Your task to perform on an android device: What's the weather today? Image 0: 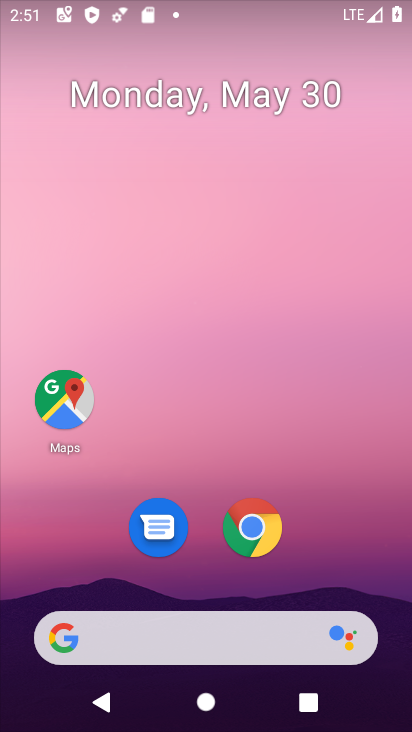
Step 0: drag from (318, 556) to (328, 62)
Your task to perform on an android device: What's the weather today? Image 1: 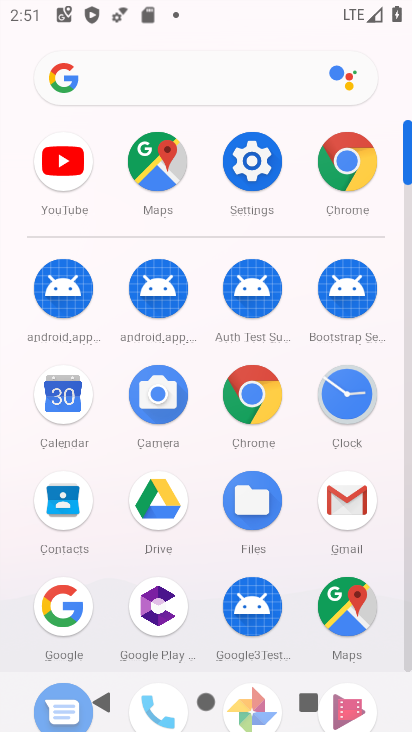
Step 1: click (244, 405)
Your task to perform on an android device: What's the weather today? Image 2: 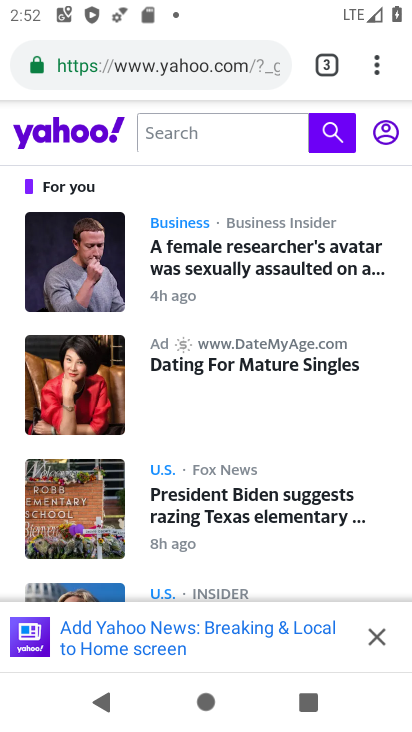
Step 2: drag from (282, 544) to (294, 220)
Your task to perform on an android device: What's the weather today? Image 3: 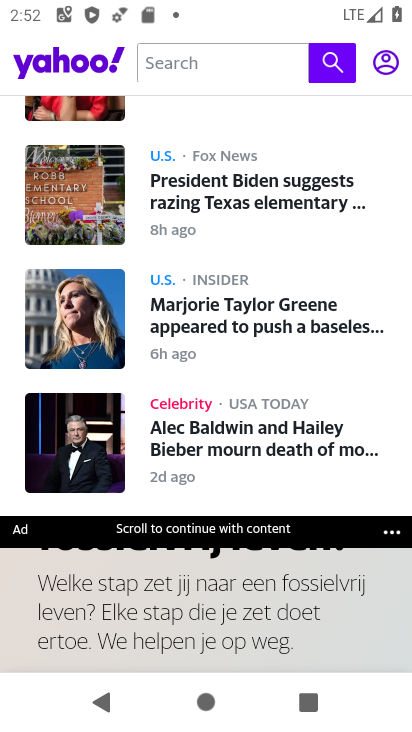
Step 3: drag from (245, 319) to (241, 504)
Your task to perform on an android device: What's the weather today? Image 4: 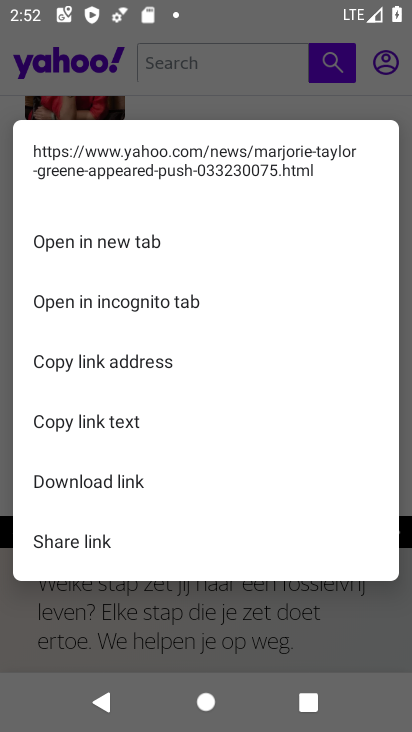
Step 4: press home button
Your task to perform on an android device: What's the weather today? Image 5: 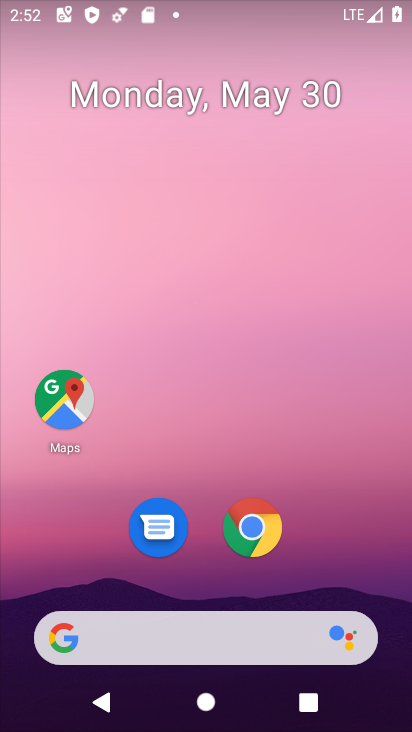
Step 5: click (256, 526)
Your task to perform on an android device: What's the weather today? Image 6: 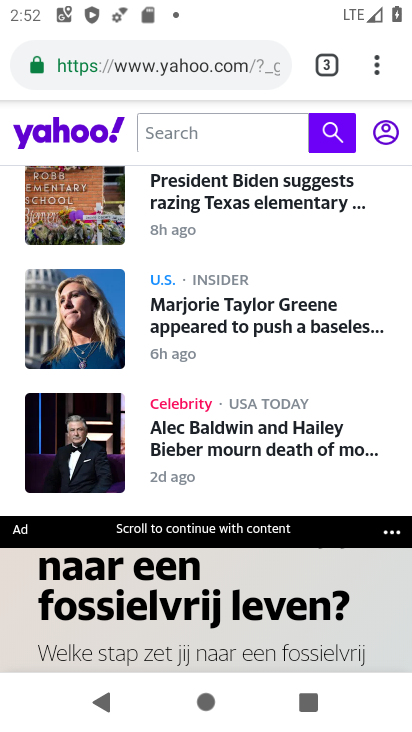
Step 6: click (199, 55)
Your task to perform on an android device: What's the weather today? Image 7: 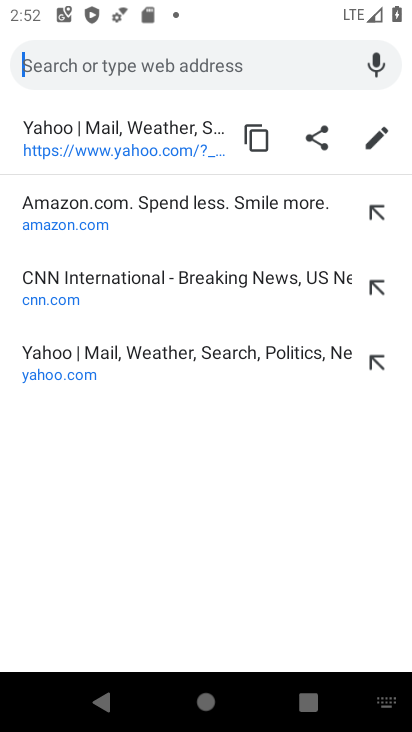
Step 7: type "What's the weather today?"
Your task to perform on an android device: What's the weather today? Image 8: 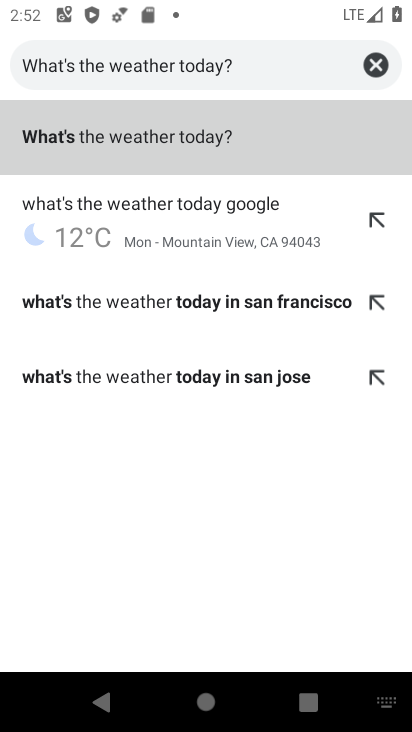
Step 8: click (126, 138)
Your task to perform on an android device: What's the weather today? Image 9: 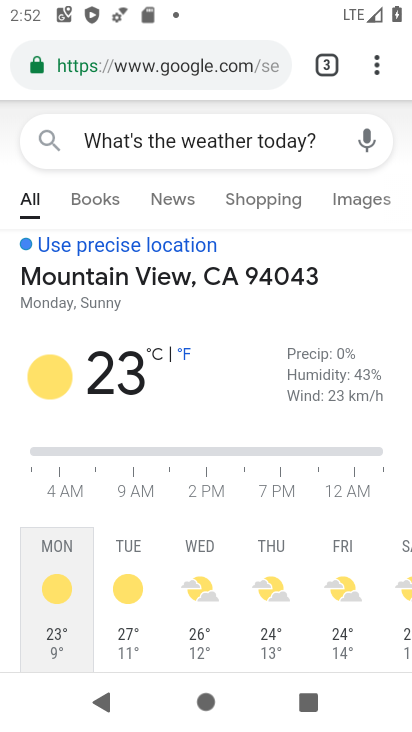
Step 9: task complete